Your task to perform on an android device: toggle translation in the chrome app Image 0: 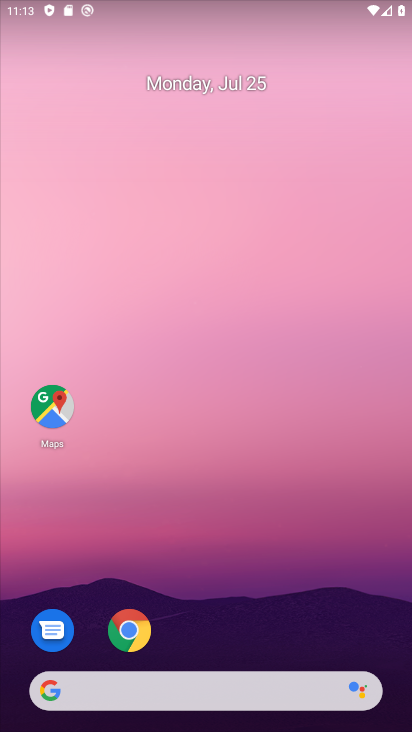
Step 0: drag from (243, 628) to (229, 224)
Your task to perform on an android device: toggle translation in the chrome app Image 1: 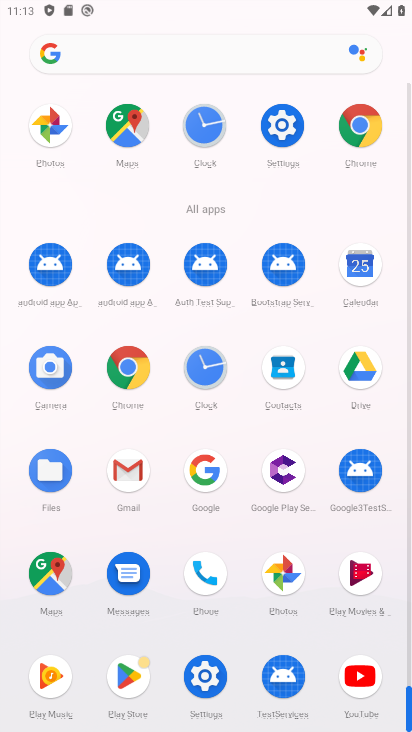
Step 1: click (362, 124)
Your task to perform on an android device: toggle translation in the chrome app Image 2: 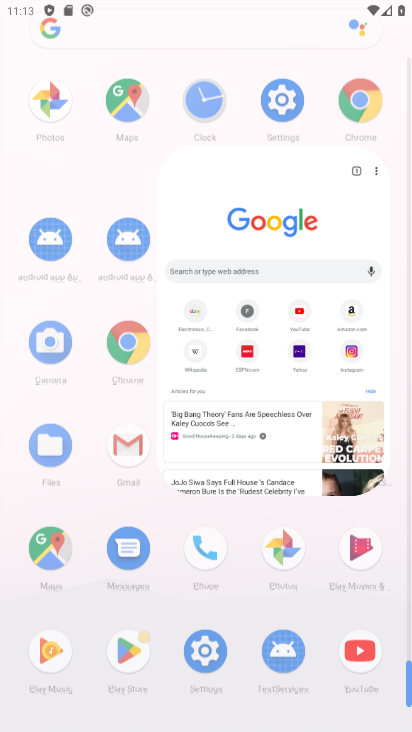
Step 2: click (363, 123)
Your task to perform on an android device: toggle translation in the chrome app Image 3: 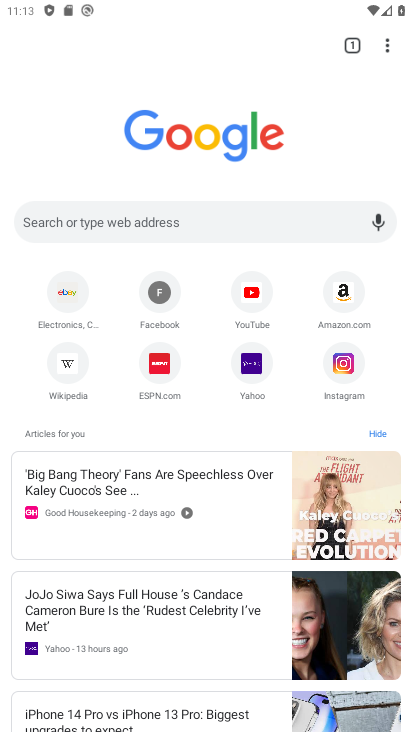
Step 3: click (389, 43)
Your task to perform on an android device: toggle translation in the chrome app Image 4: 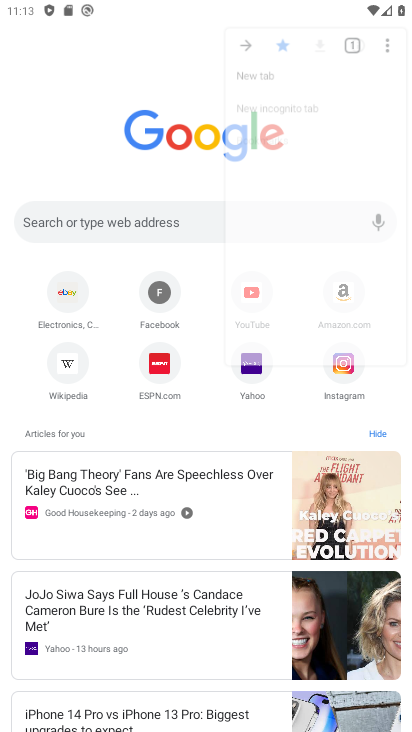
Step 4: click (386, 44)
Your task to perform on an android device: toggle translation in the chrome app Image 5: 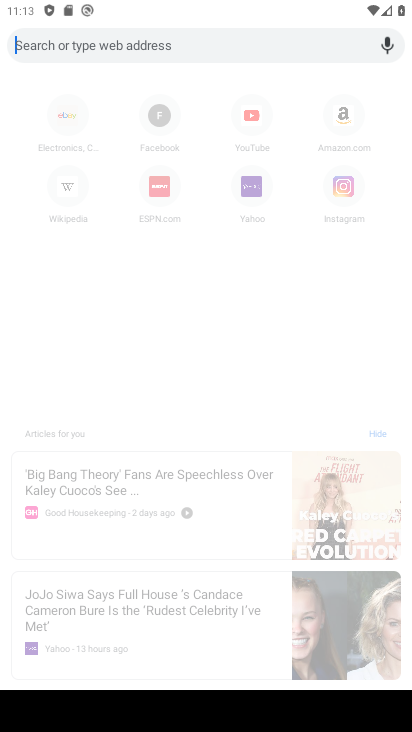
Step 5: press back button
Your task to perform on an android device: toggle translation in the chrome app Image 6: 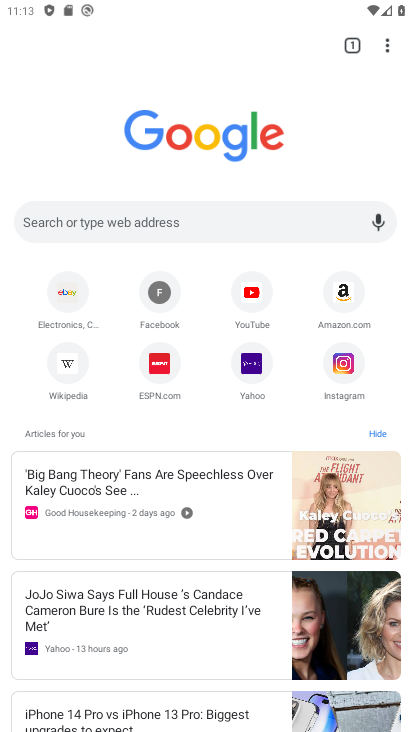
Step 6: drag from (382, 44) to (216, 381)
Your task to perform on an android device: toggle translation in the chrome app Image 7: 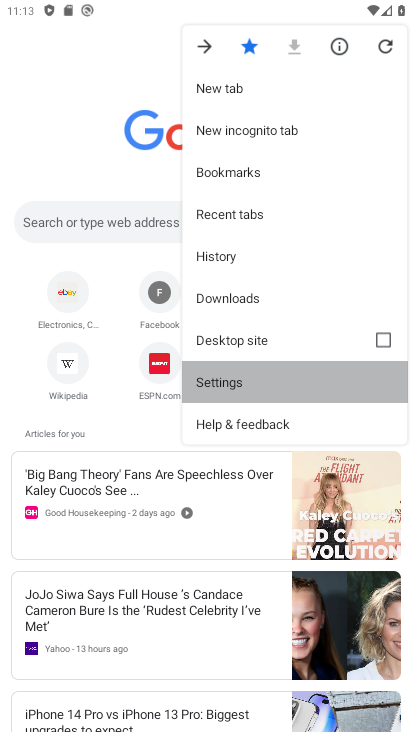
Step 7: click (230, 379)
Your task to perform on an android device: toggle translation in the chrome app Image 8: 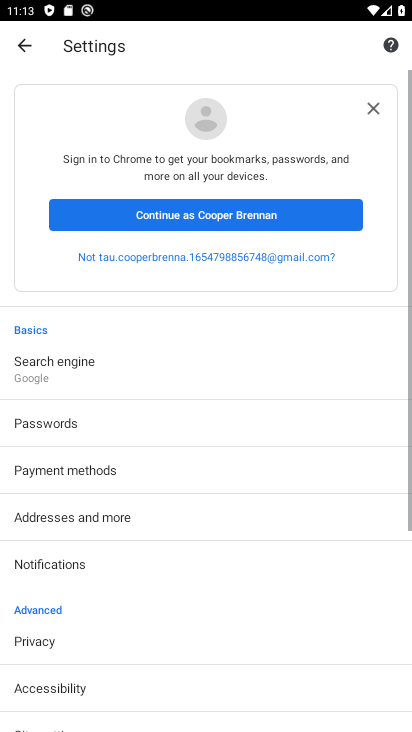
Step 8: drag from (143, 573) to (136, 278)
Your task to perform on an android device: toggle translation in the chrome app Image 9: 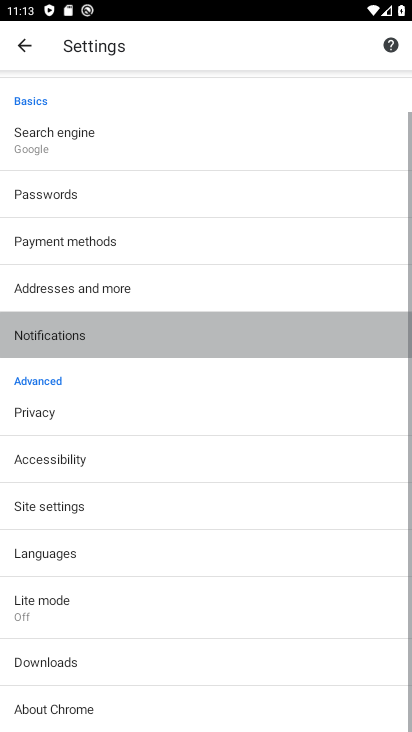
Step 9: drag from (136, 527) to (187, 248)
Your task to perform on an android device: toggle translation in the chrome app Image 10: 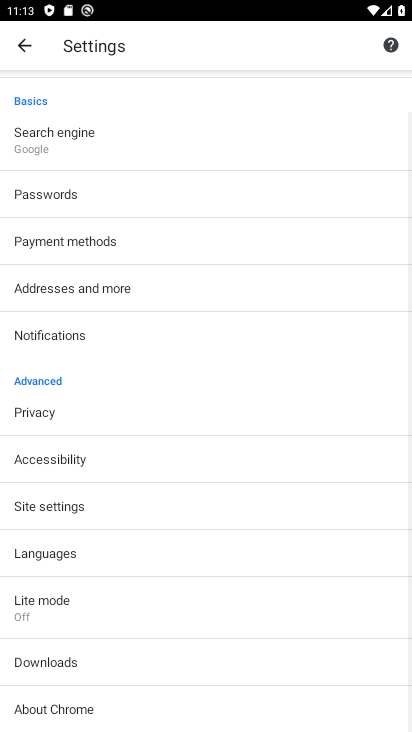
Step 10: click (101, 559)
Your task to perform on an android device: toggle translation in the chrome app Image 11: 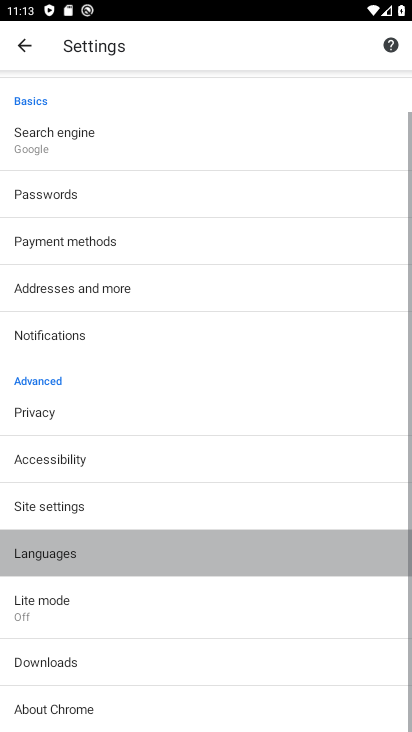
Step 11: click (103, 560)
Your task to perform on an android device: toggle translation in the chrome app Image 12: 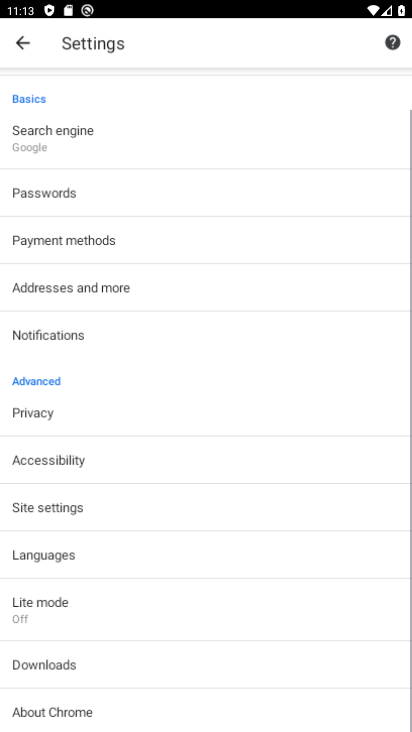
Step 12: click (103, 560)
Your task to perform on an android device: toggle translation in the chrome app Image 13: 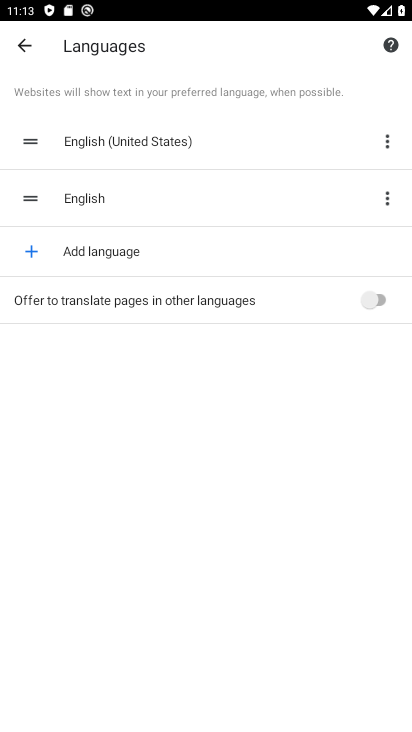
Step 13: click (370, 297)
Your task to perform on an android device: toggle translation in the chrome app Image 14: 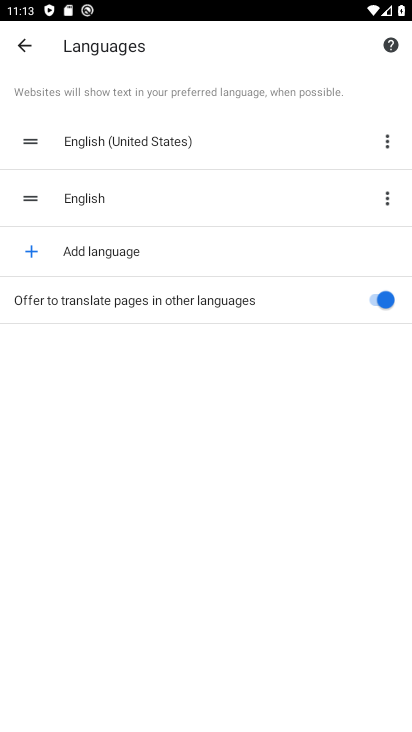
Step 14: task complete